Your task to perform on an android device: Open Android settings Image 0: 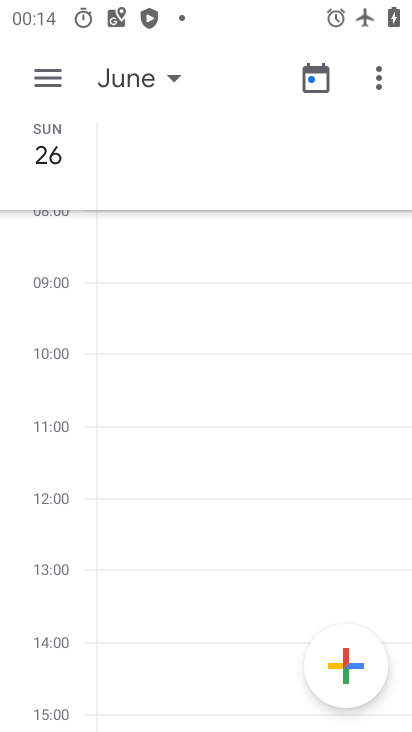
Step 0: press home button
Your task to perform on an android device: Open Android settings Image 1: 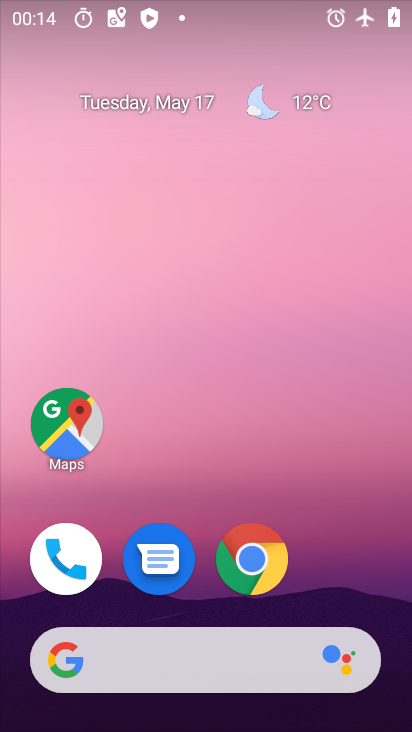
Step 1: drag from (316, 556) to (90, 16)
Your task to perform on an android device: Open Android settings Image 2: 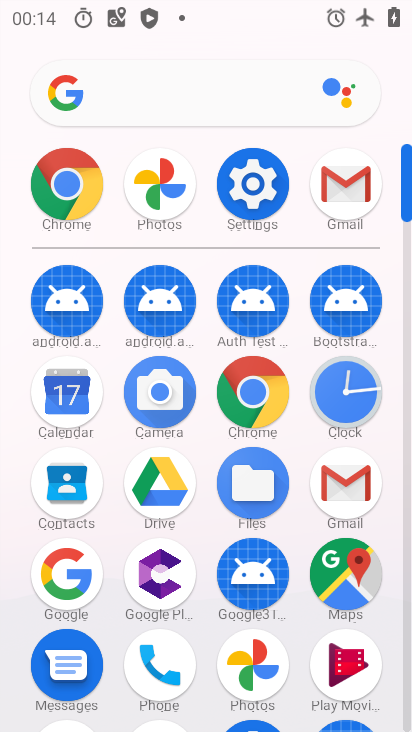
Step 2: click (253, 182)
Your task to perform on an android device: Open Android settings Image 3: 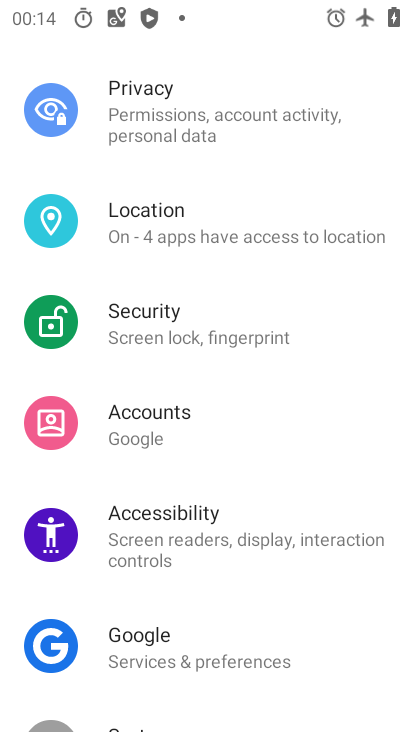
Step 3: task complete